Your task to perform on an android device: Open calendar and show me the third week of next month Image 0: 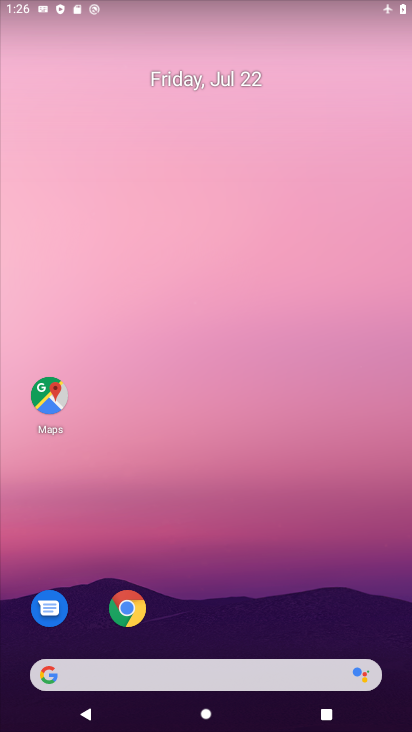
Step 0: drag from (234, 723) to (231, 194)
Your task to perform on an android device: Open calendar and show me the third week of next month Image 1: 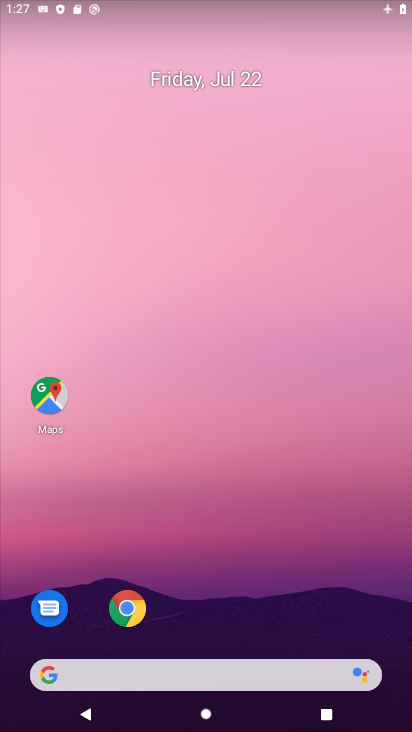
Step 1: drag from (233, 723) to (242, 144)
Your task to perform on an android device: Open calendar and show me the third week of next month Image 2: 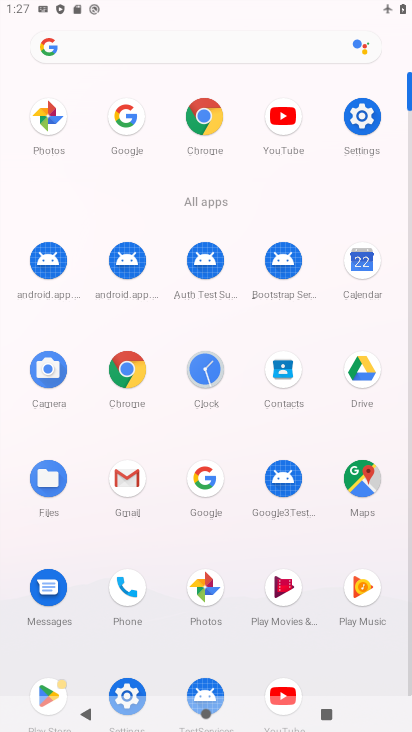
Step 2: click (361, 261)
Your task to perform on an android device: Open calendar and show me the third week of next month Image 3: 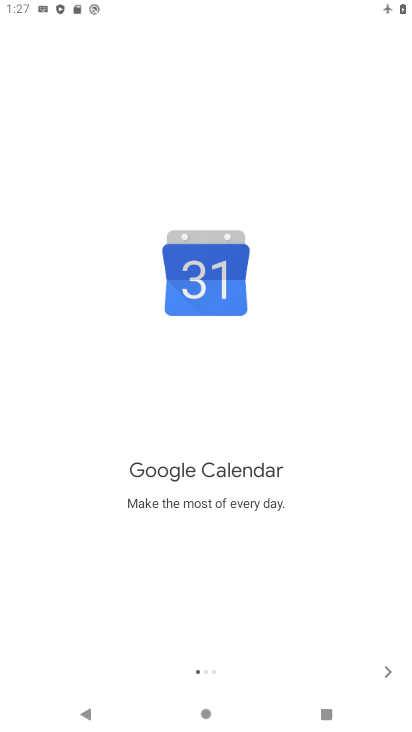
Step 3: click (389, 670)
Your task to perform on an android device: Open calendar and show me the third week of next month Image 4: 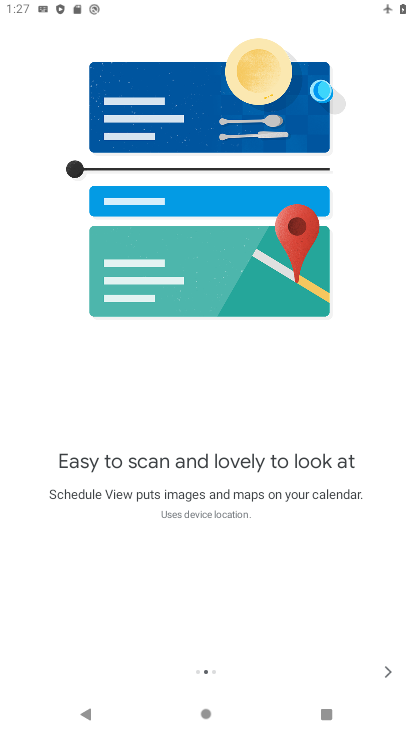
Step 4: click (387, 674)
Your task to perform on an android device: Open calendar and show me the third week of next month Image 5: 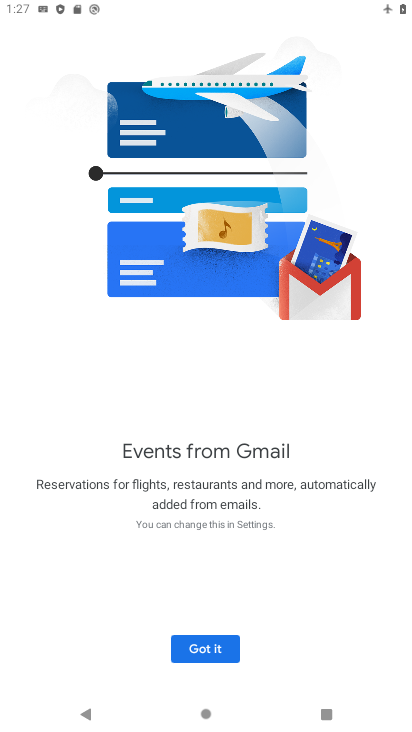
Step 5: click (210, 642)
Your task to perform on an android device: Open calendar and show me the third week of next month Image 6: 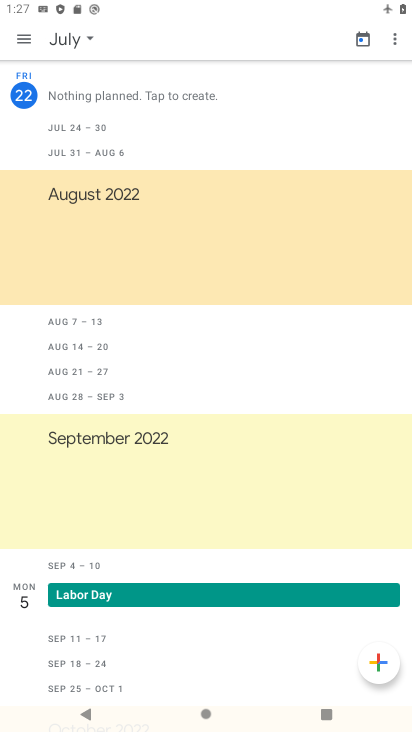
Step 6: click (88, 35)
Your task to perform on an android device: Open calendar and show me the third week of next month Image 7: 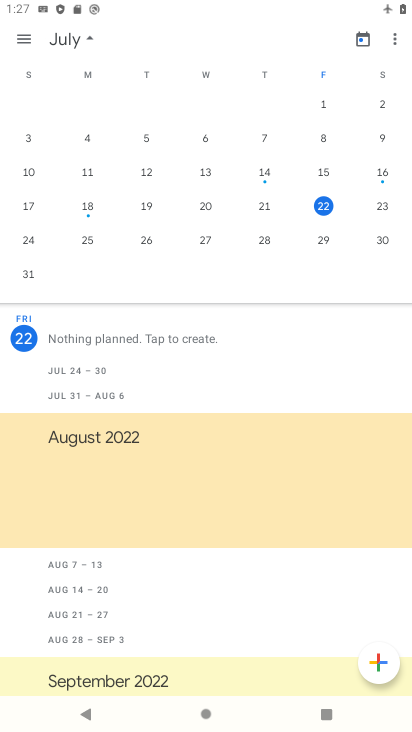
Step 7: drag from (298, 192) to (0, 209)
Your task to perform on an android device: Open calendar and show me the third week of next month Image 8: 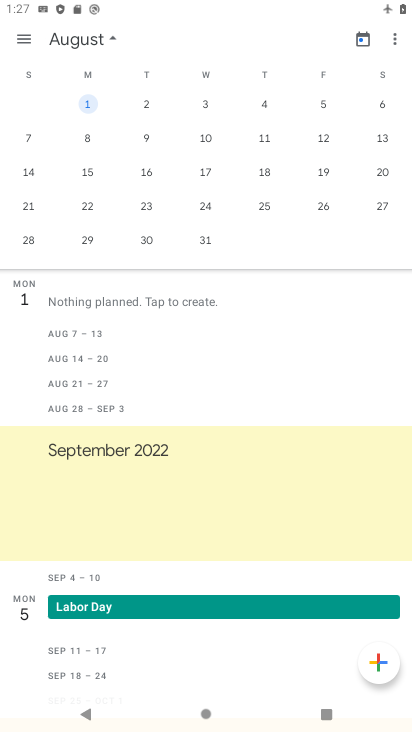
Step 8: click (86, 172)
Your task to perform on an android device: Open calendar and show me the third week of next month Image 9: 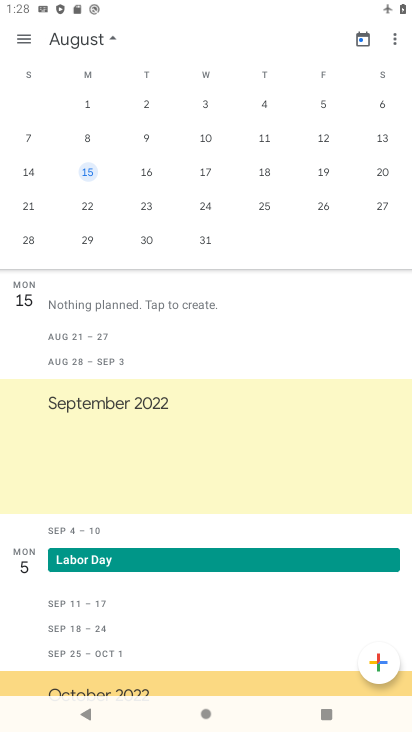
Step 9: click (86, 172)
Your task to perform on an android device: Open calendar and show me the third week of next month Image 10: 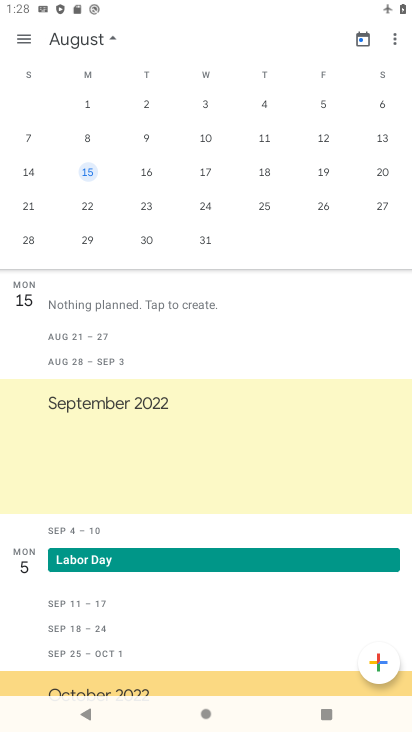
Step 10: click (24, 43)
Your task to perform on an android device: Open calendar and show me the third week of next month Image 11: 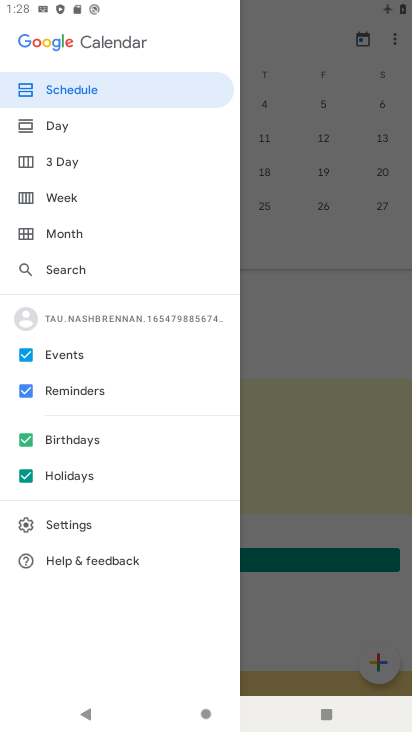
Step 11: click (62, 194)
Your task to perform on an android device: Open calendar and show me the third week of next month Image 12: 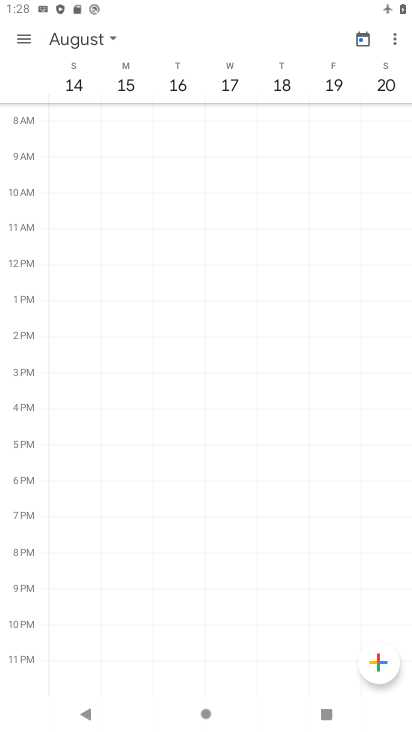
Step 12: task complete